Your task to perform on an android device: turn off notifications settings in the gmail app Image 0: 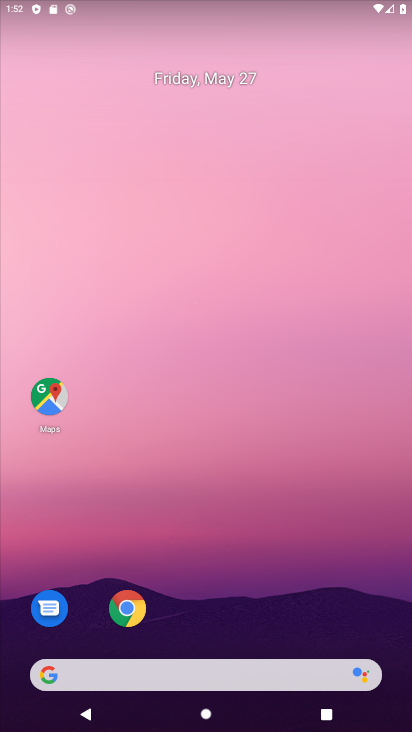
Step 0: drag from (198, 652) to (328, 182)
Your task to perform on an android device: turn off notifications settings in the gmail app Image 1: 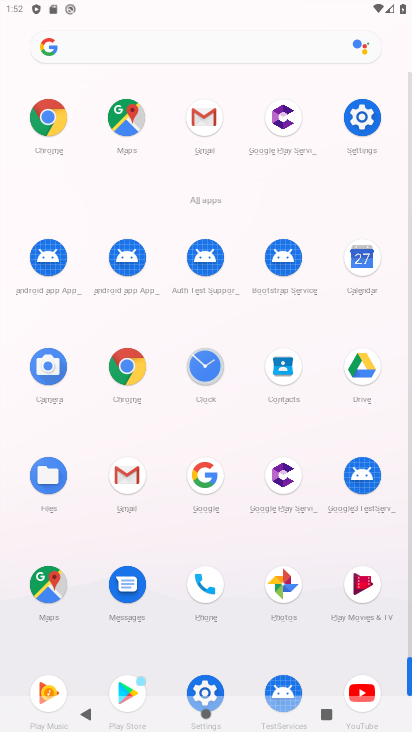
Step 1: drag from (135, 557) to (278, 256)
Your task to perform on an android device: turn off notifications settings in the gmail app Image 2: 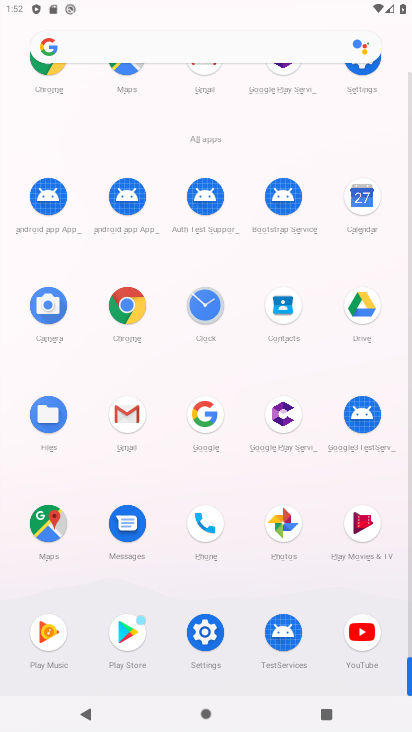
Step 2: drag from (188, 604) to (285, 340)
Your task to perform on an android device: turn off notifications settings in the gmail app Image 3: 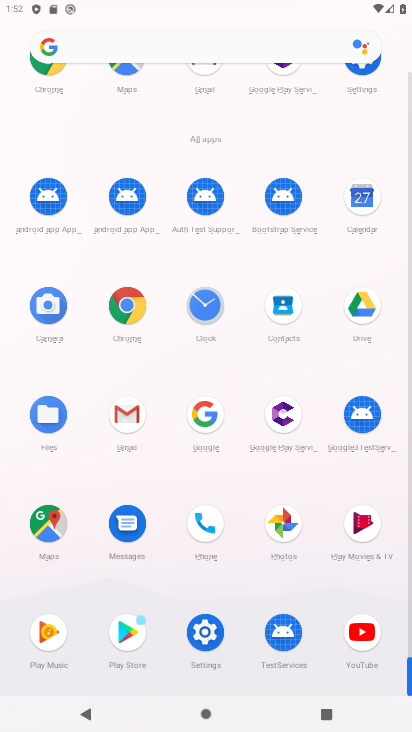
Step 3: click (139, 427)
Your task to perform on an android device: turn off notifications settings in the gmail app Image 4: 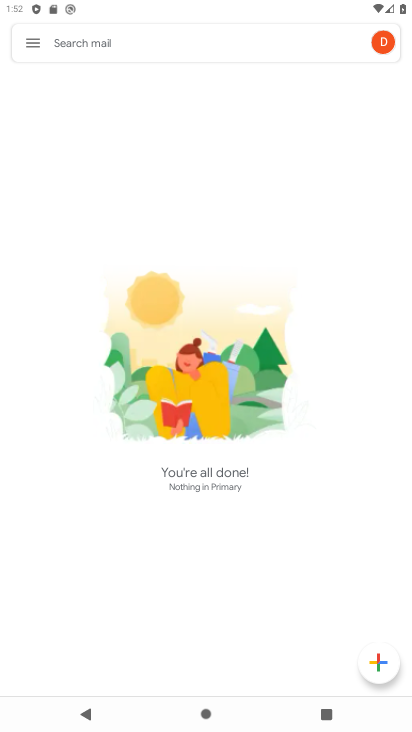
Step 4: click (27, 44)
Your task to perform on an android device: turn off notifications settings in the gmail app Image 5: 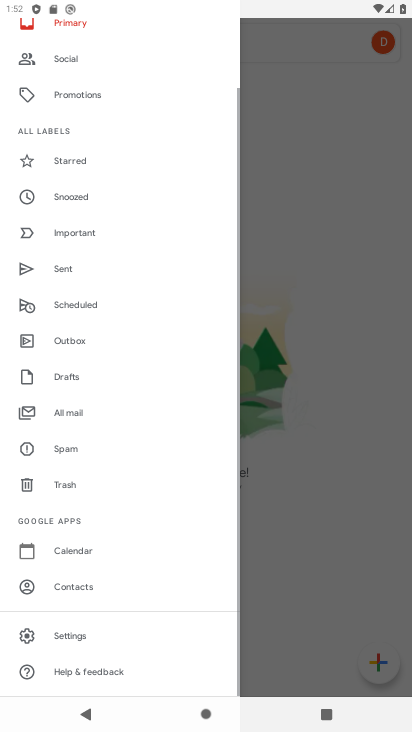
Step 5: drag from (113, 680) to (226, 330)
Your task to perform on an android device: turn off notifications settings in the gmail app Image 6: 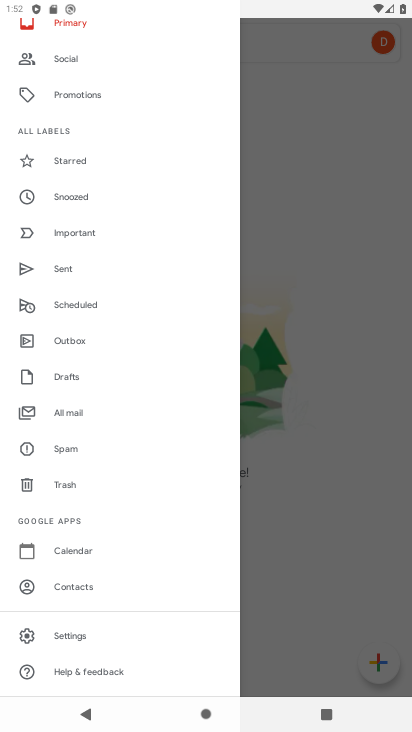
Step 6: click (70, 637)
Your task to perform on an android device: turn off notifications settings in the gmail app Image 7: 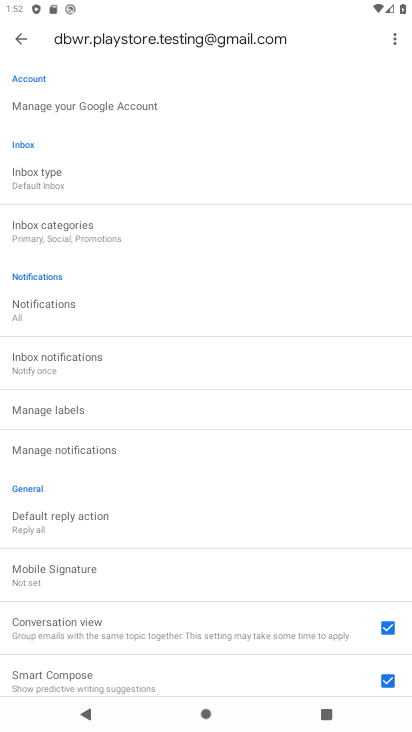
Step 7: click (148, 445)
Your task to perform on an android device: turn off notifications settings in the gmail app Image 8: 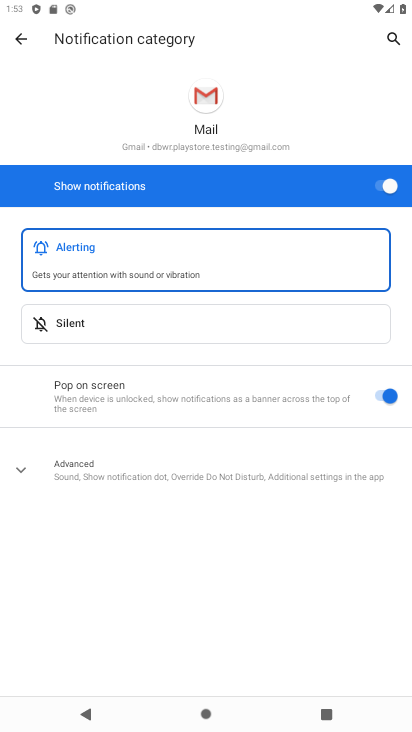
Step 8: click (393, 183)
Your task to perform on an android device: turn off notifications settings in the gmail app Image 9: 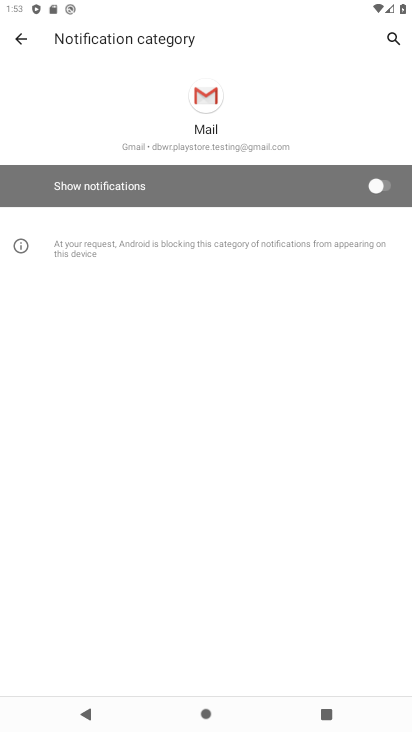
Step 9: task complete